Your task to perform on an android device: See recent photos Image 0: 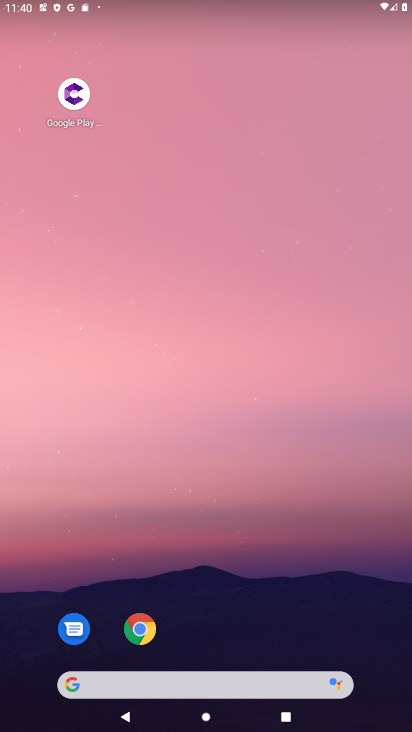
Step 0: drag from (317, 594) to (266, 64)
Your task to perform on an android device: See recent photos Image 1: 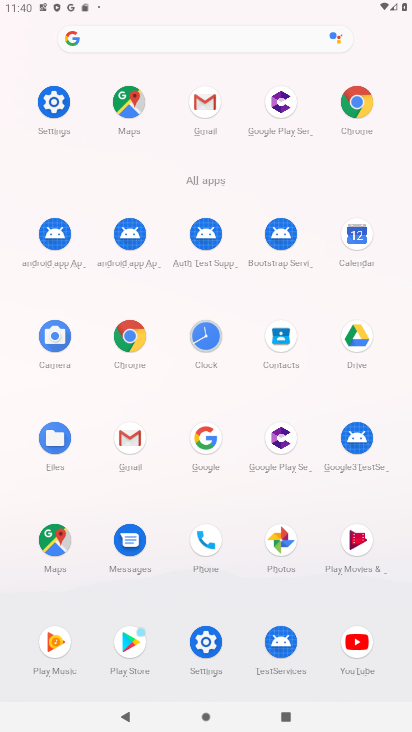
Step 1: click (279, 538)
Your task to perform on an android device: See recent photos Image 2: 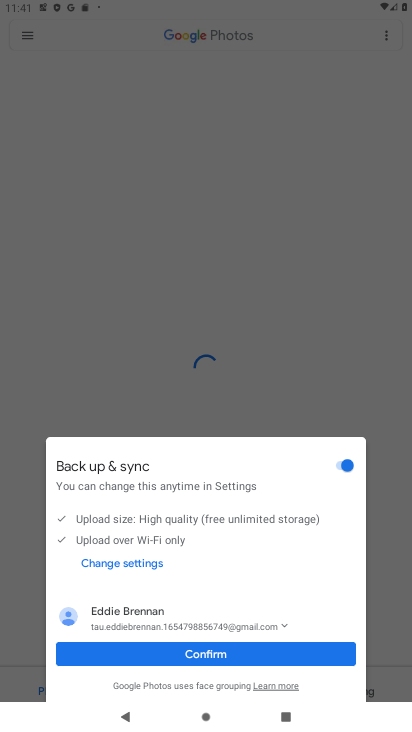
Step 2: click (275, 664)
Your task to perform on an android device: See recent photos Image 3: 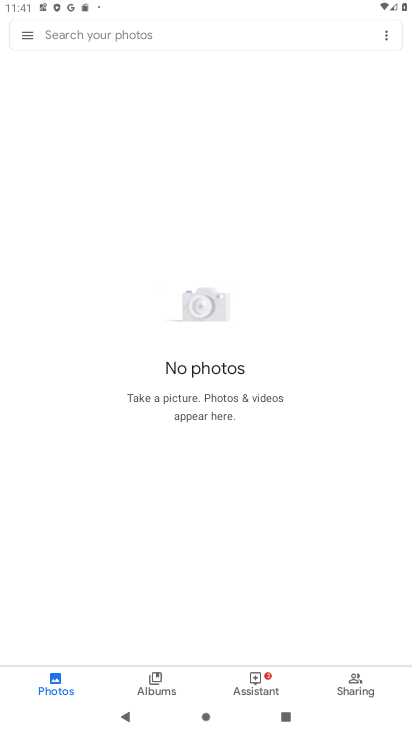
Step 3: task complete